Your task to perform on an android device: Go to CNN.com Image 0: 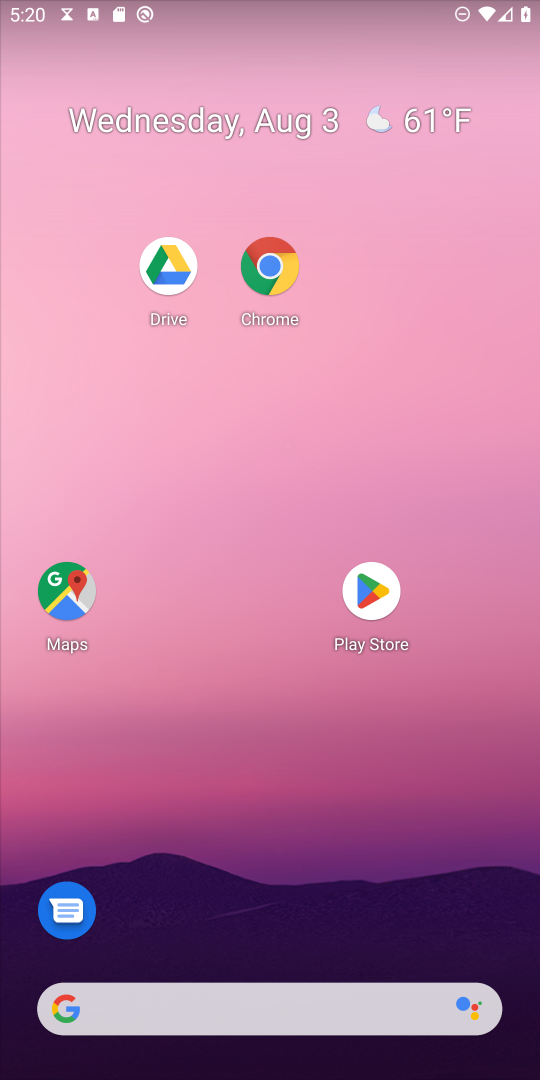
Step 0: drag from (464, 688) to (390, 0)
Your task to perform on an android device: Go to CNN.com Image 1: 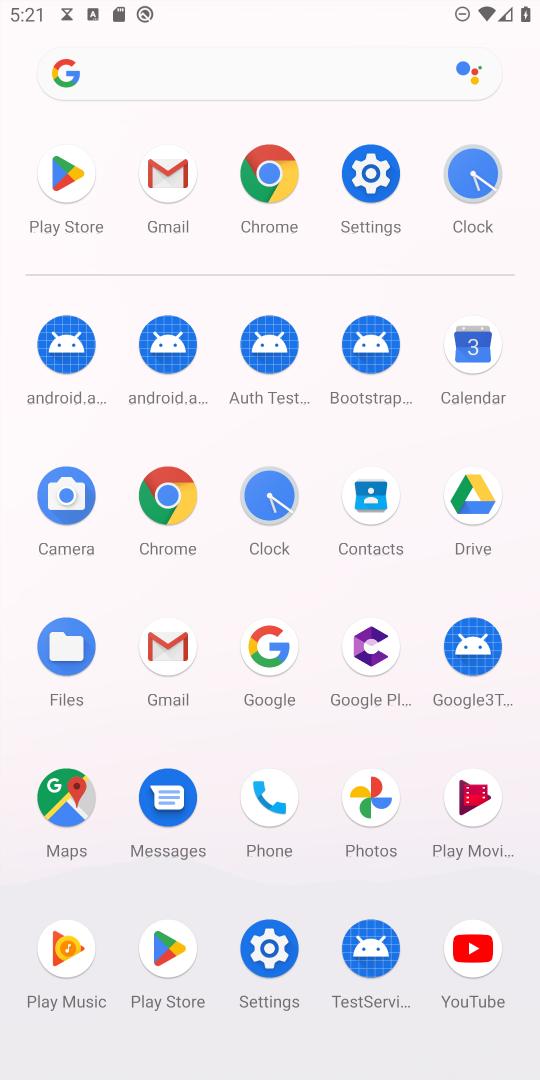
Step 1: click (155, 476)
Your task to perform on an android device: Go to CNN.com Image 2: 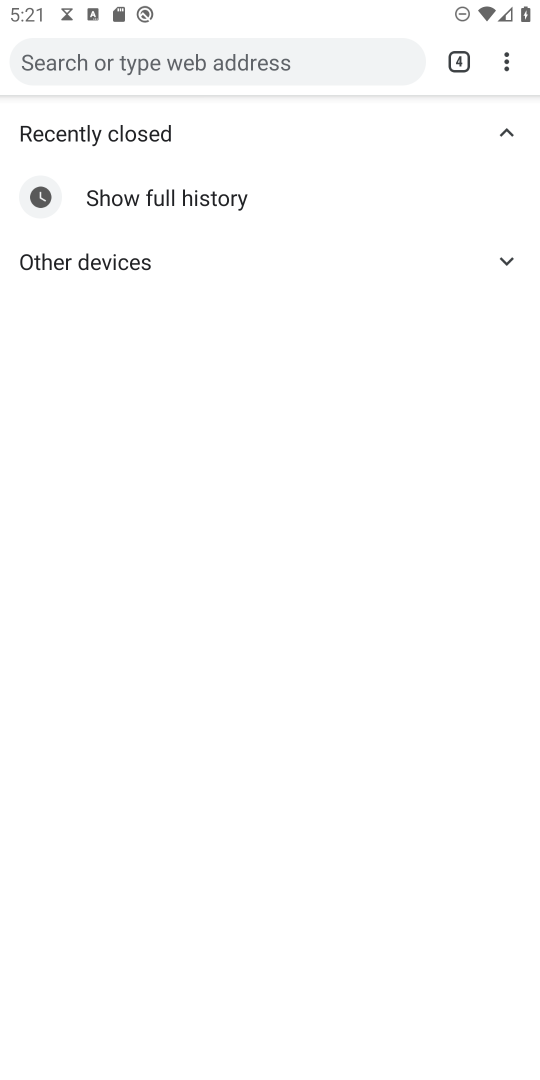
Step 2: click (155, 497)
Your task to perform on an android device: Go to CNN.com Image 3: 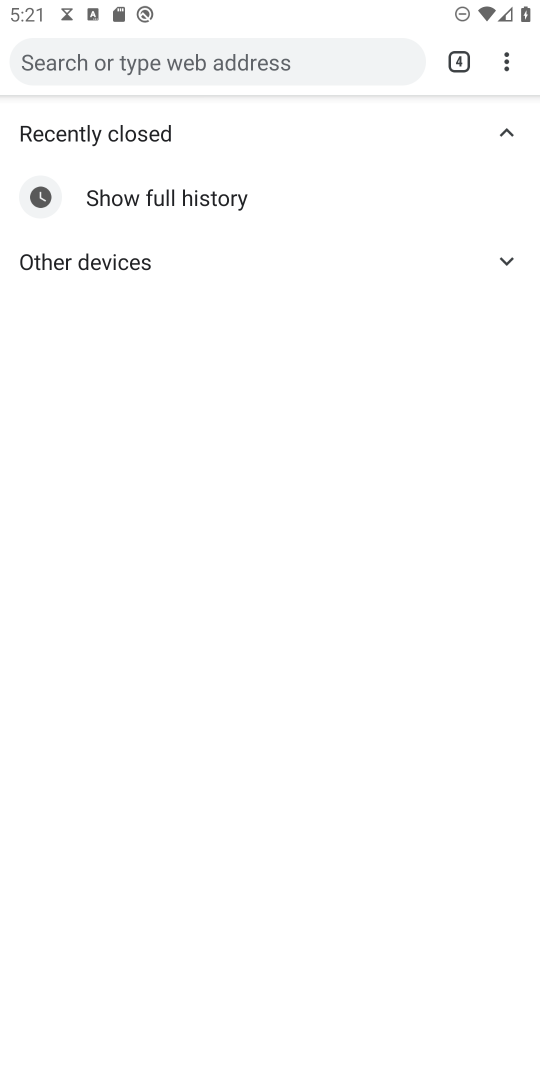
Step 3: drag from (501, 49) to (352, 104)
Your task to perform on an android device: Go to CNN.com Image 4: 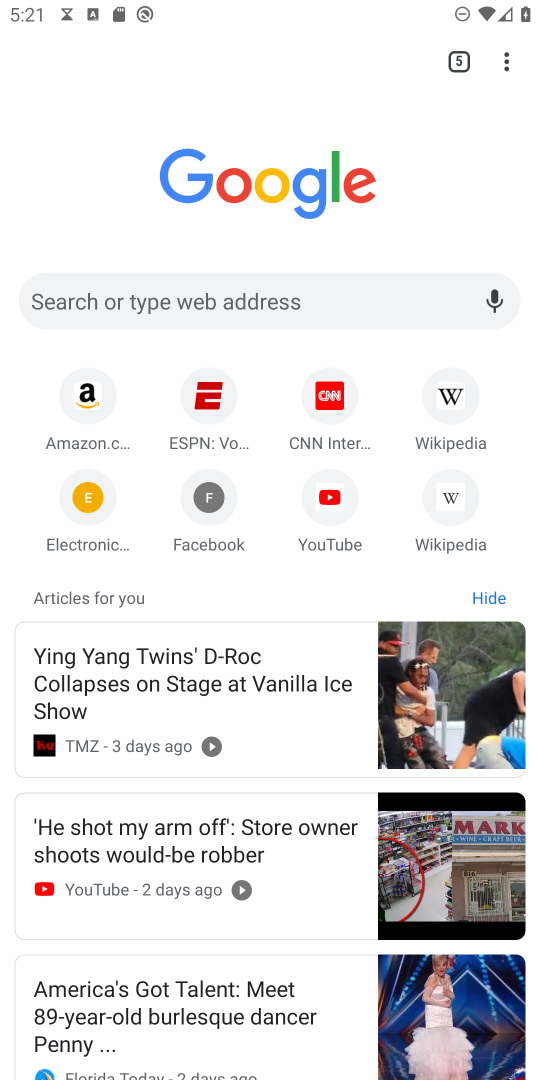
Step 4: click (333, 406)
Your task to perform on an android device: Go to CNN.com Image 5: 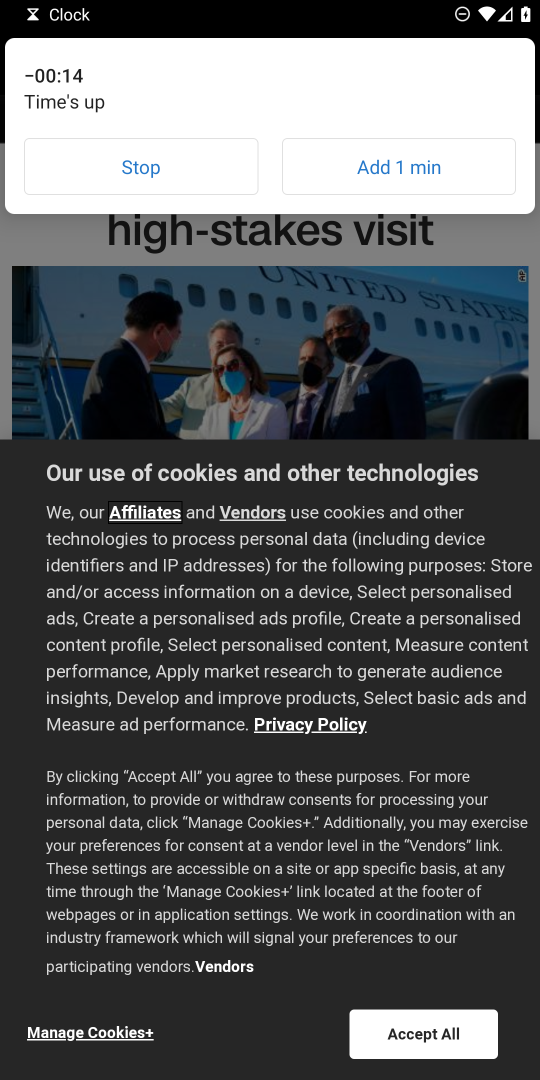
Step 5: click (141, 159)
Your task to perform on an android device: Go to CNN.com Image 6: 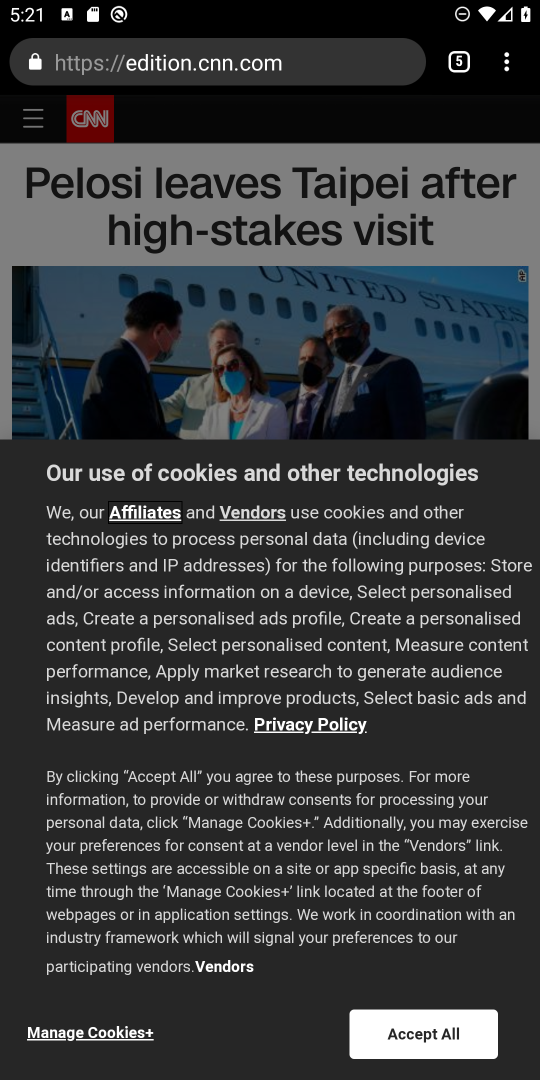
Step 6: task complete